Your task to perform on an android device: Open calendar and show me the second week of next month Image 0: 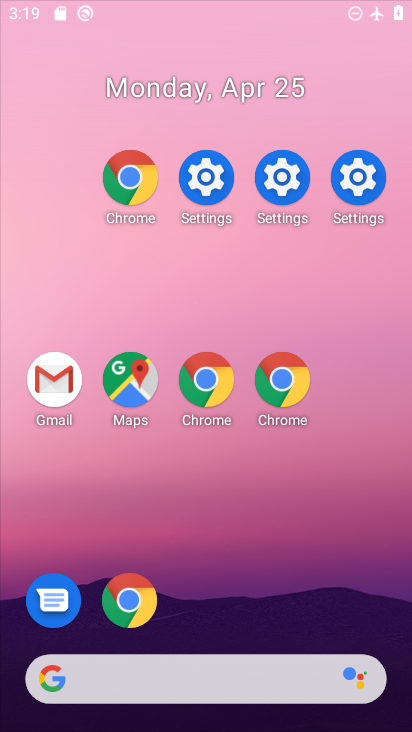
Step 0: press home button
Your task to perform on an android device: Open calendar and show me the second week of next month Image 1: 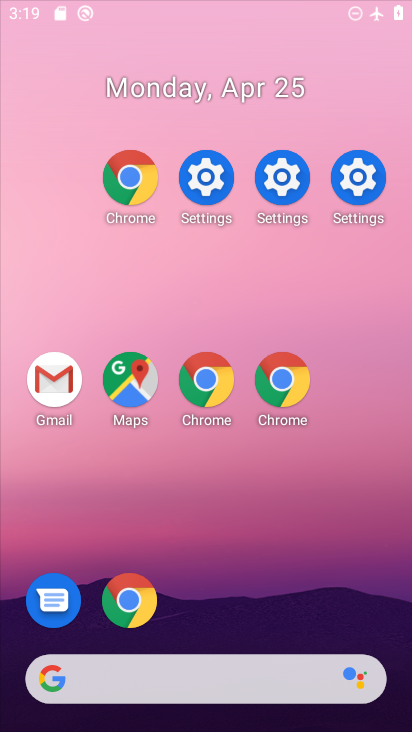
Step 1: drag from (87, 13) to (130, 132)
Your task to perform on an android device: Open calendar and show me the second week of next month Image 2: 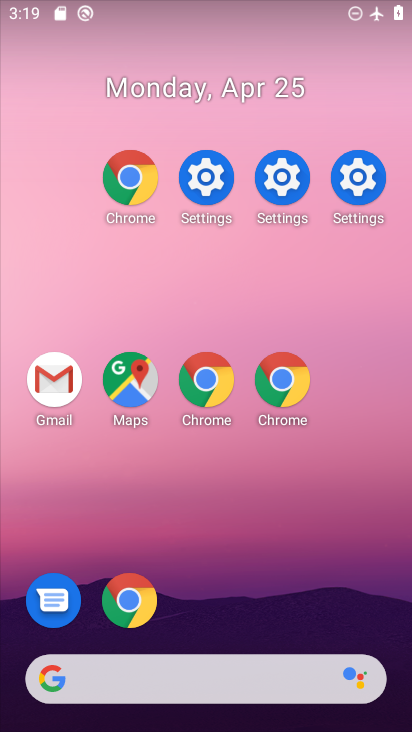
Step 2: drag from (230, 535) to (124, 8)
Your task to perform on an android device: Open calendar and show me the second week of next month Image 3: 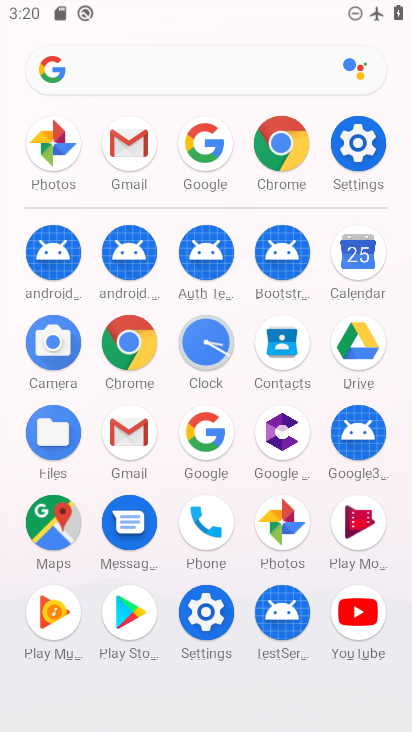
Step 3: click (357, 250)
Your task to perform on an android device: Open calendar and show me the second week of next month Image 4: 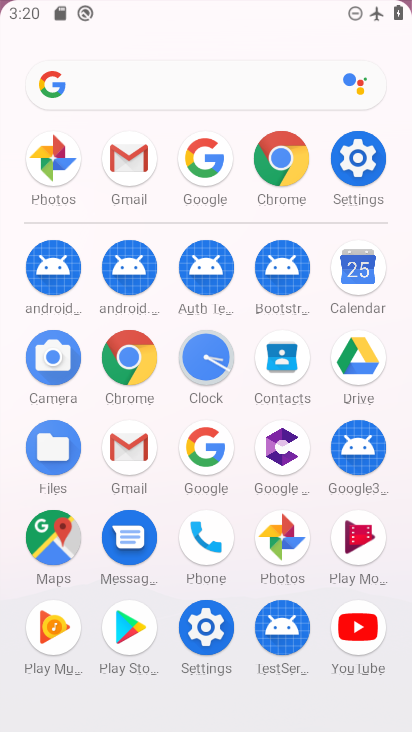
Step 4: click (363, 255)
Your task to perform on an android device: Open calendar and show me the second week of next month Image 5: 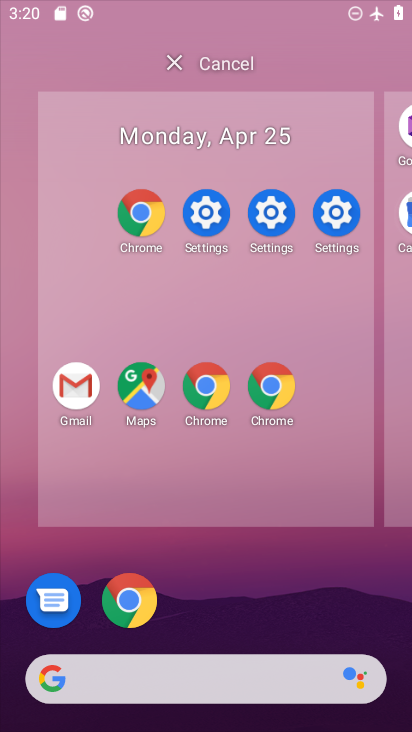
Step 5: click (357, 232)
Your task to perform on an android device: Open calendar and show me the second week of next month Image 6: 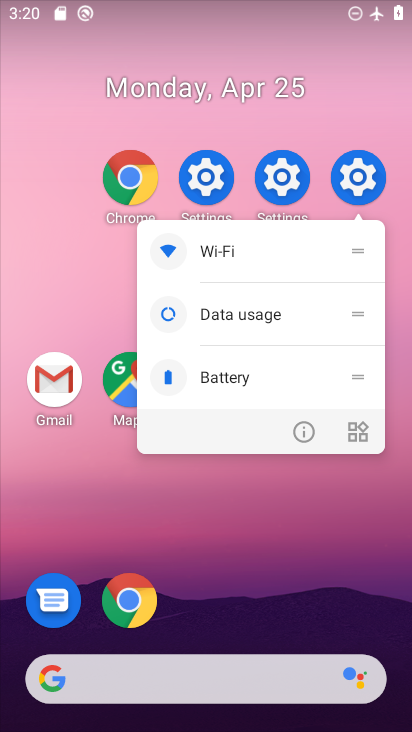
Step 6: drag from (230, 590) to (128, 54)
Your task to perform on an android device: Open calendar and show me the second week of next month Image 7: 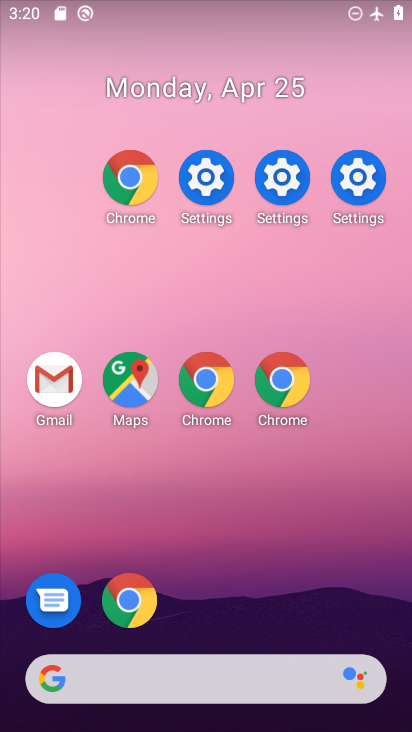
Step 7: drag from (104, 270) to (43, 53)
Your task to perform on an android device: Open calendar and show me the second week of next month Image 8: 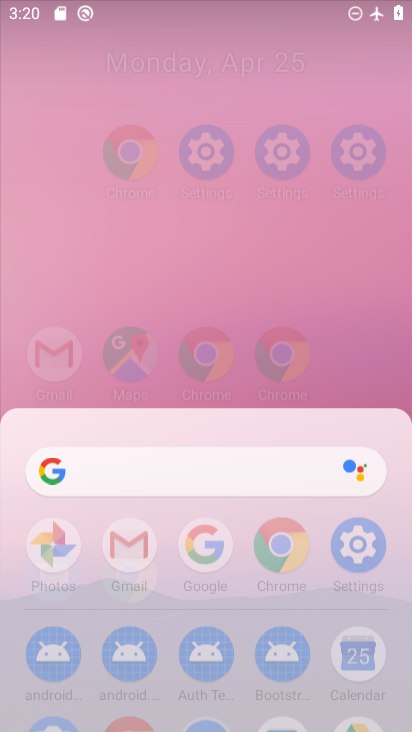
Step 8: drag from (257, 469) to (204, 3)
Your task to perform on an android device: Open calendar and show me the second week of next month Image 9: 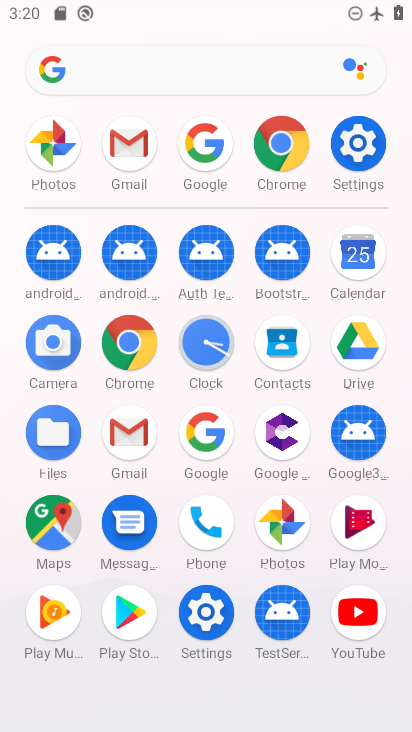
Step 9: drag from (290, 545) to (330, 26)
Your task to perform on an android device: Open calendar and show me the second week of next month Image 10: 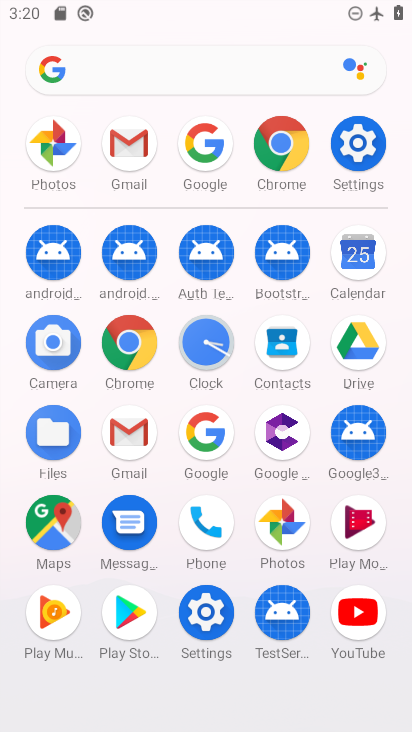
Step 10: click (353, 249)
Your task to perform on an android device: Open calendar and show me the second week of next month Image 11: 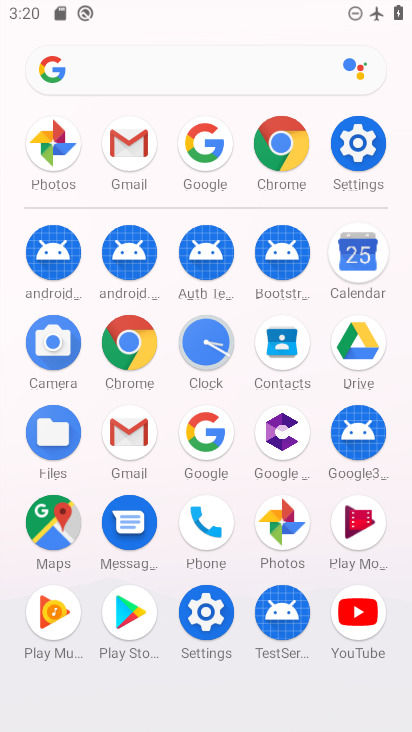
Step 11: click (389, 293)
Your task to perform on an android device: Open calendar and show me the second week of next month Image 12: 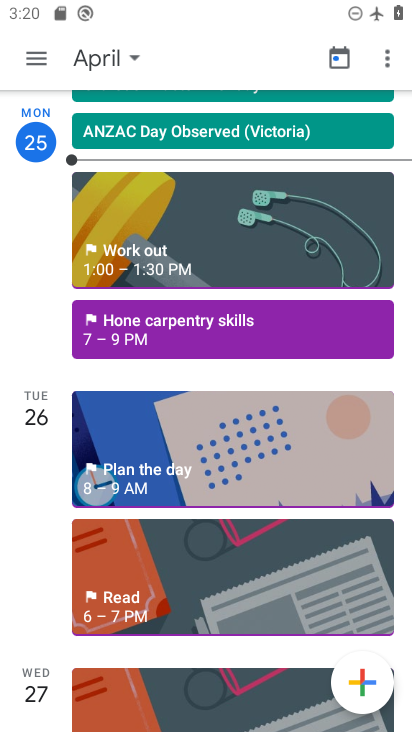
Step 12: drag from (133, 57) to (236, 694)
Your task to perform on an android device: Open calendar and show me the second week of next month Image 13: 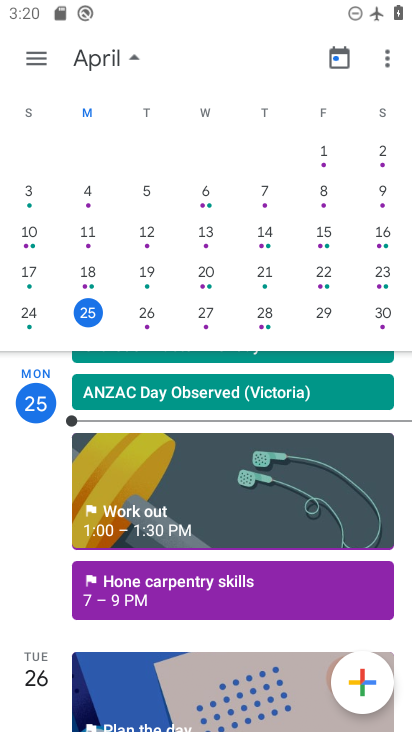
Step 13: drag from (217, 289) to (44, 276)
Your task to perform on an android device: Open calendar and show me the second week of next month Image 14: 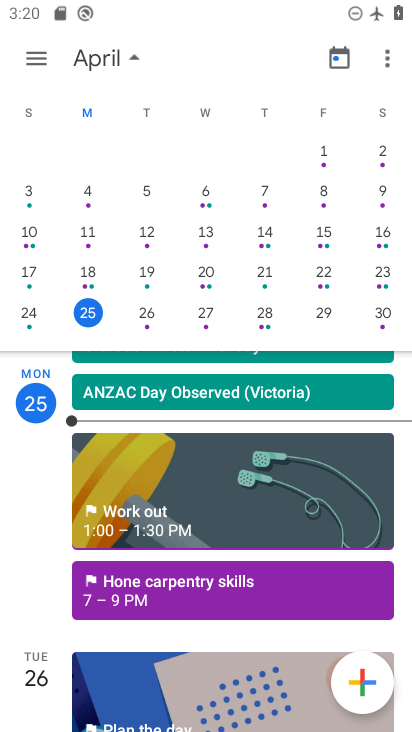
Step 14: drag from (136, 305) to (47, 232)
Your task to perform on an android device: Open calendar and show me the second week of next month Image 15: 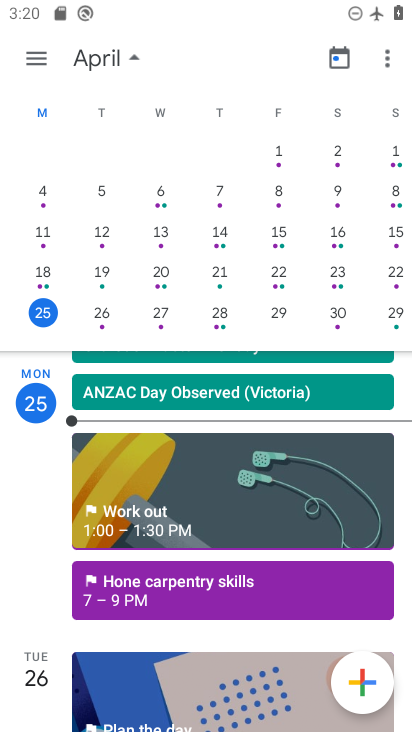
Step 15: drag from (9, 304) to (88, 285)
Your task to perform on an android device: Open calendar and show me the second week of next month Image 16: 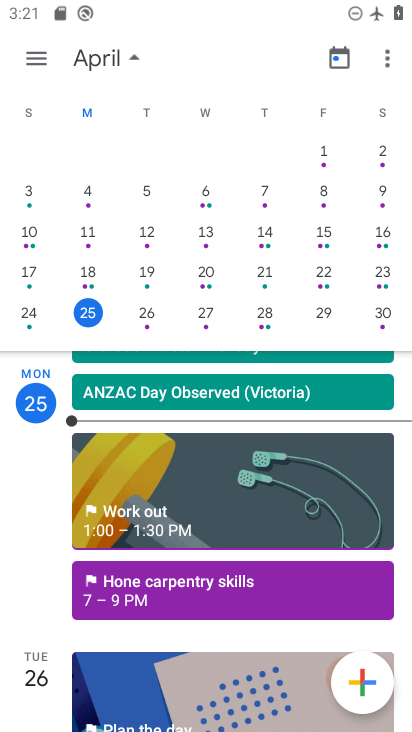
Step 16: drag from (309, 307) to (2, 280)
Your task to perform on an android device: Open calendar and show me the second week of next month Image 17: 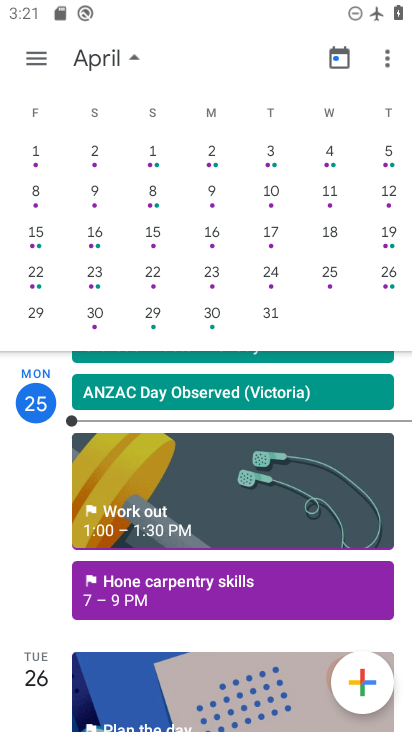
Step 17: click (44, 305)
Your task to perform on an android device: Open calendar and show me the second week of next month Image 18: 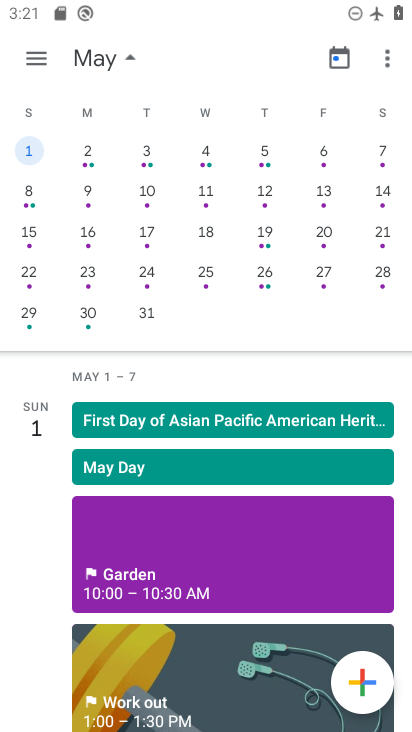
Step 18: click (88, 179)
Your task to perform on an android device: Open calendar and show me the second week of next month Image 19: 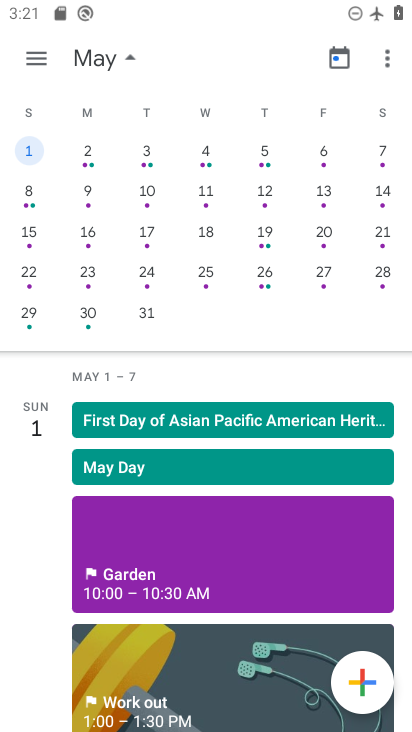
Step 19: click (85, 192)
Your task to perform on an android device: Open calendar and show me the second week of next month Image 20: 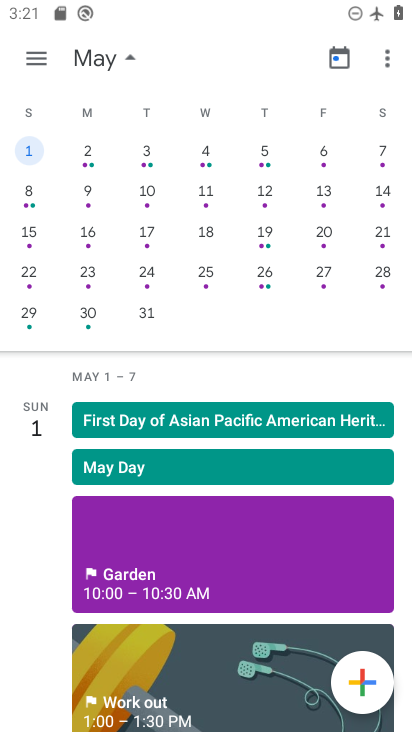
Step 20: click (86, 194)
Your task to perform on an android device: Open calendar and show me the second week of next month Image 21: 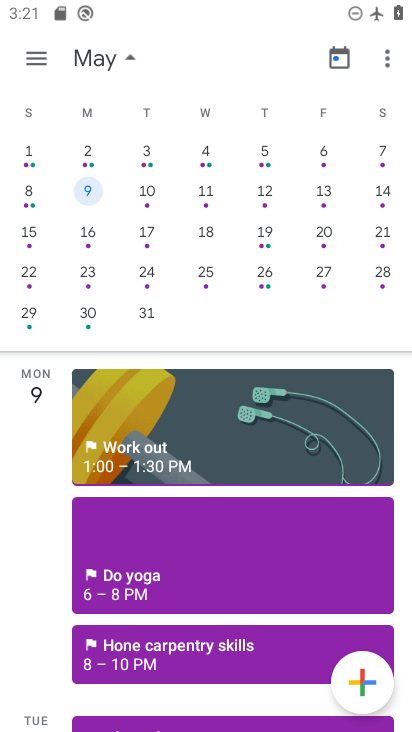
Step 21: click (89, 196)
Your task to perform on an android device: Open calendar and show me the second week of next month Image 22: 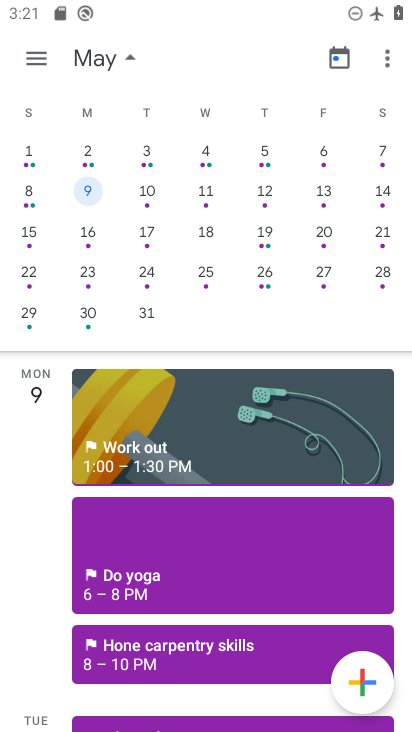
Step 22: click (81, 186)
Your task to perform on an android device: Open calendar and show me the second week of next month Image 23: 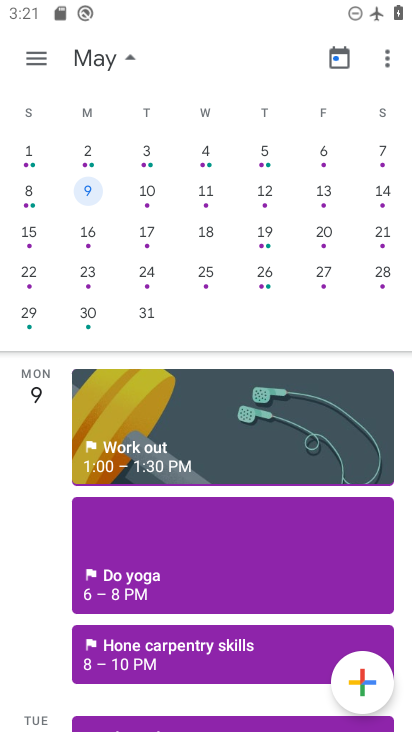
Step 23: task complete